Your task to perform on an android device: Open the phone app and click the voicemail tab. Image 0: 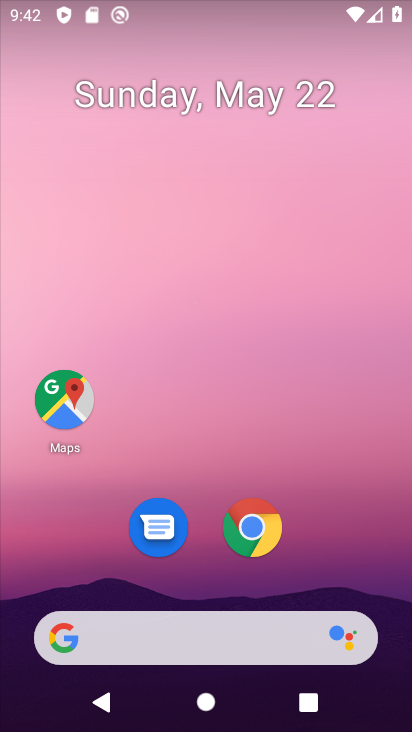
Step 0: drag from (338, 576) to (254, 125)
Your task to perform on an android device: Open the phone app and click the voicemail tab. Image 1: 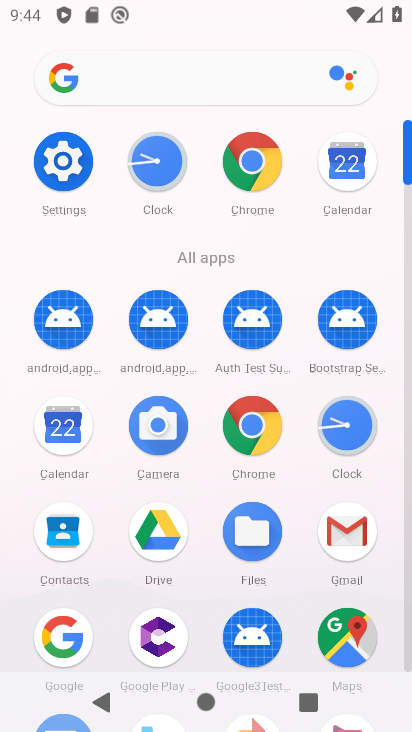
Step 1: click (406, 640)
Your task to perform on an android device: Open the phone app and click the voicemail tab. Image 2: 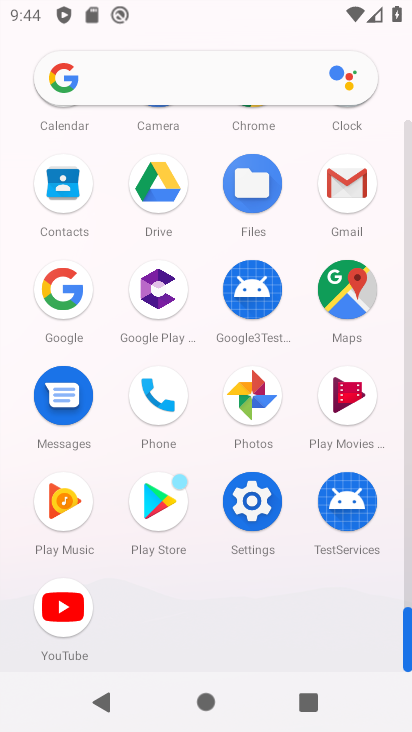
Step 2: click (406, 640)
Your task to perform on an android device: Open the phone app and click the voicemail tab. Image 3: 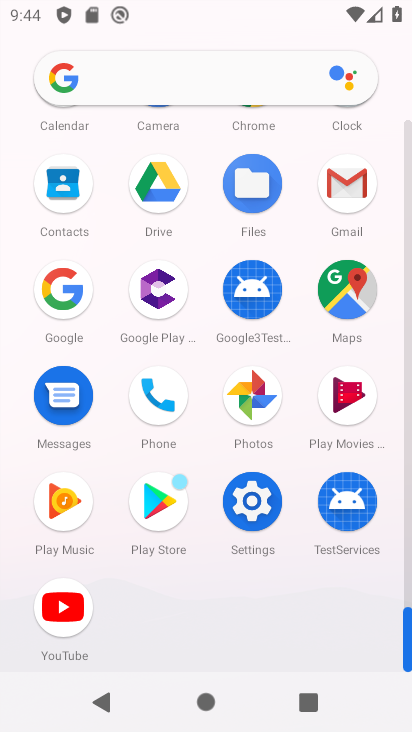
Step 3: click (152, 420)
Your task to perform on an android device: Open the phone app and click the voicemail tab. Image 4: 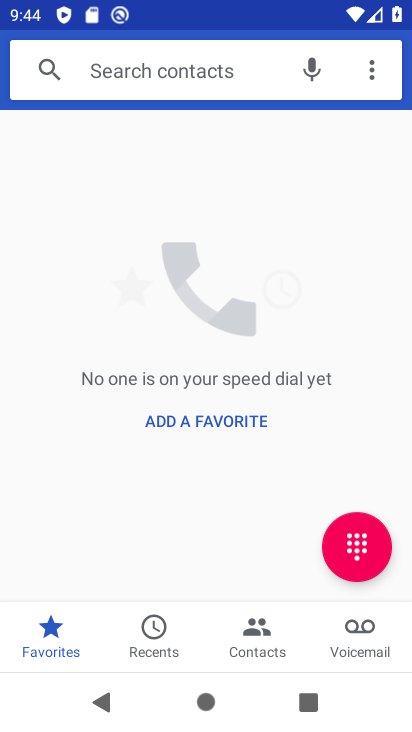
Step 4: click (364, 652)
Your task to perform on an android device: Open the phone app and click the voicemail tab. Image 5: 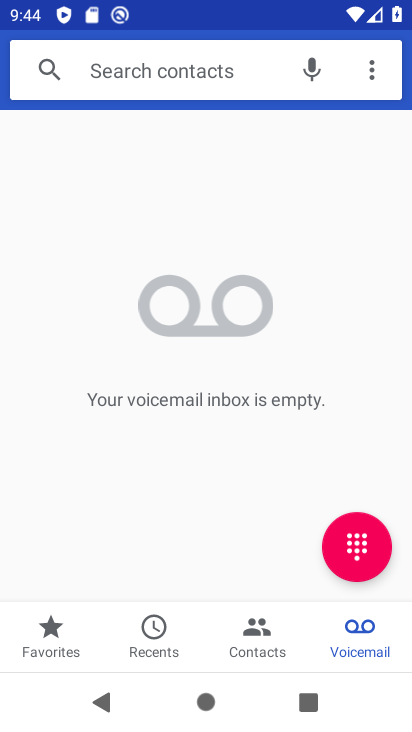
Step 5: task complete